Your task to perform on an android device: turn off notifications settings in the gmail app Image 0: 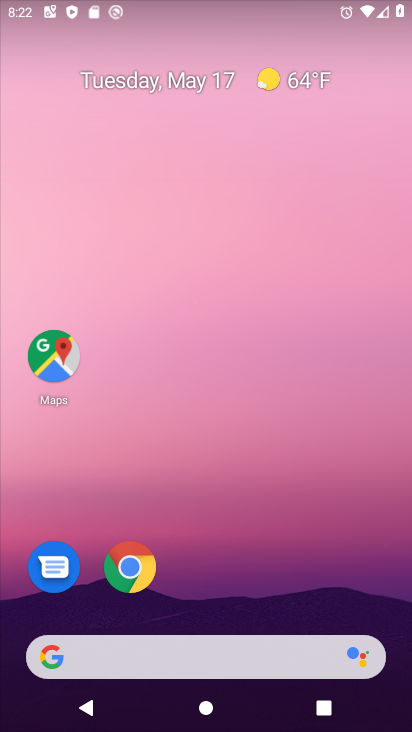
Step 0: drag from (345, 600) to (196, 9)
Your task to perform on an android device: turn off notifications settings in the gmail app Image 1: 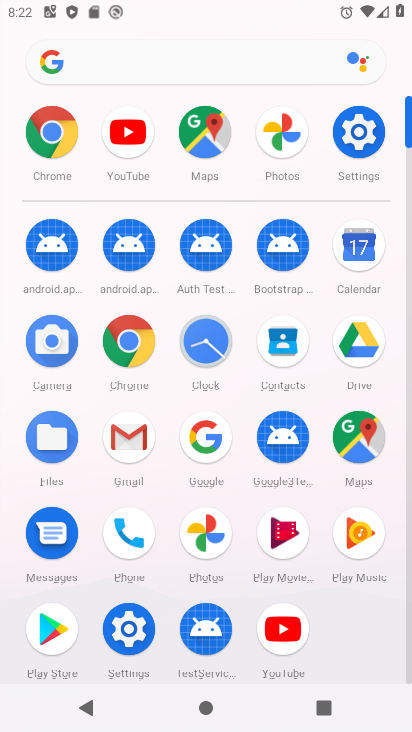
Step 1: click (136, 444)
Your task to perform on an android device: turn off notifications settings in the gmail app Image 2: 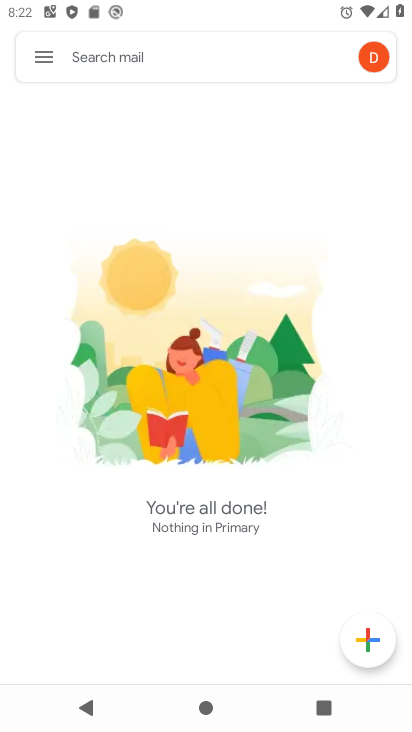
Step 2: click (48, 55)
Your task to perform on an android device: turn off notifications settings in the gmail app Image 3: 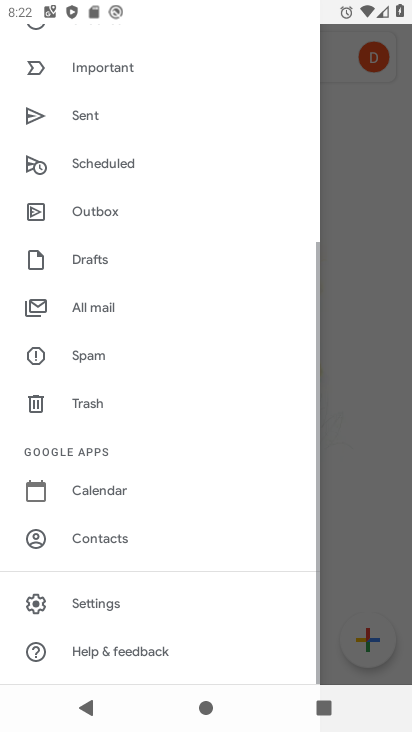
Step 3: click (91, 589)
Your task to perform on an android device: turn off notifications settings in the gmail app Image 4: 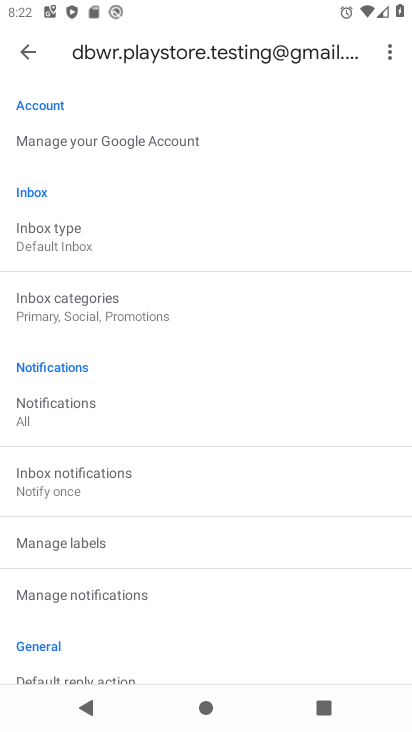
Step 4: click (93, 430)
Your task to perform on an android device: turn off notifications settings in the gmail app Image 5: 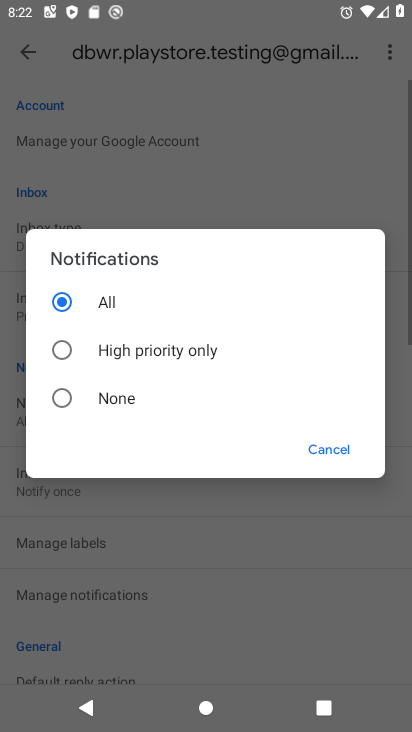
Step 5: click (77, 391)
Your task to perform on an android device: turn off notifications settings in the gmail app Image 6: 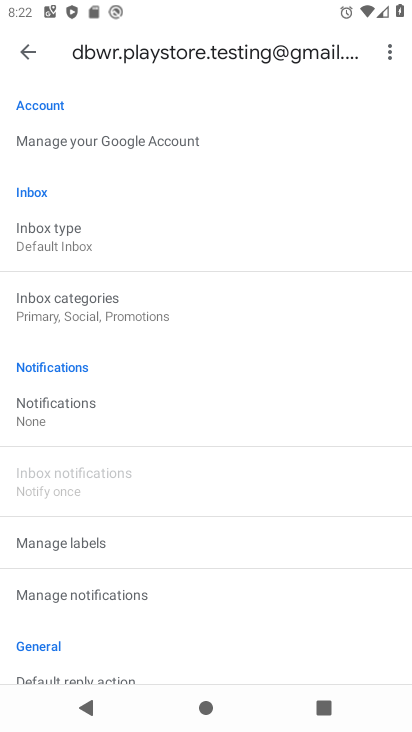
Step 6: task complete